Your task to perform on an android device: Open notification settings Image 0: 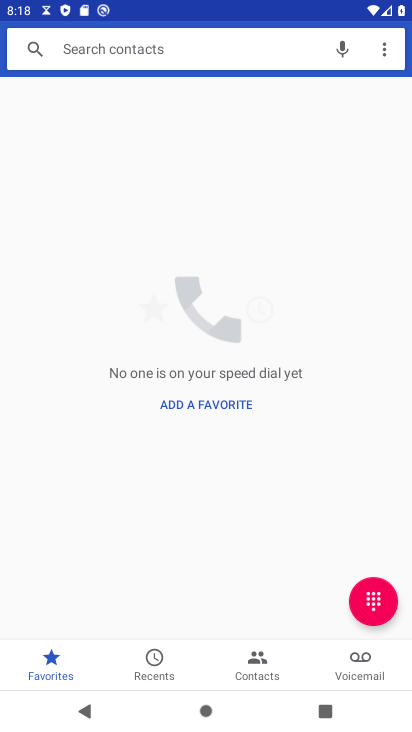
Step 0: press home button
Your task to perform on an android device: Open notification settings Image 1: 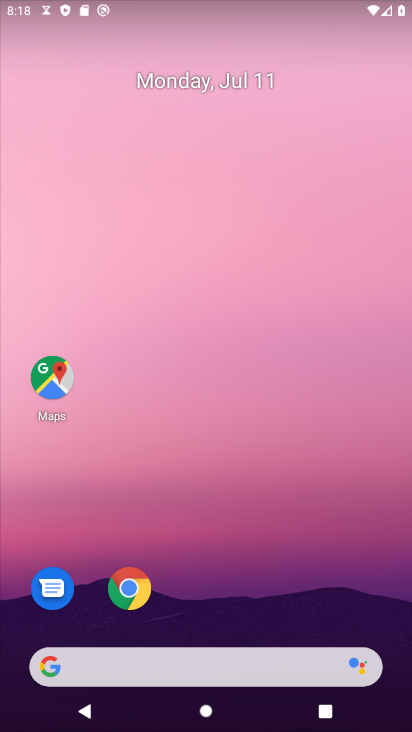
Step 1: drag from (252, 617) to (142, 128)
Your task to perform on an android device: Open notification settings Image 2: 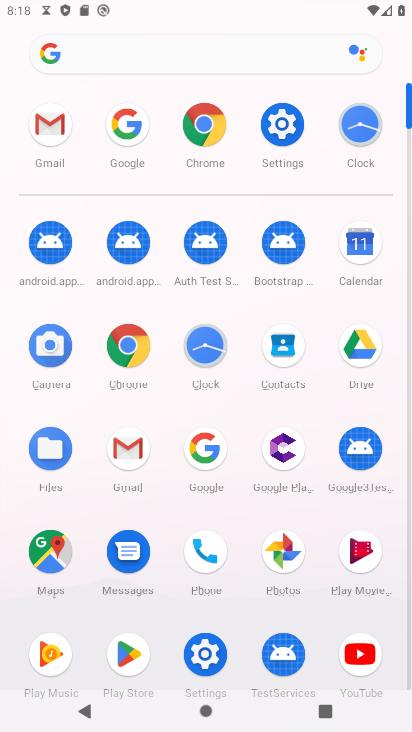
Step 2: click (282, 127)
Your task to perform on an android device: Open notification settings Image 3: 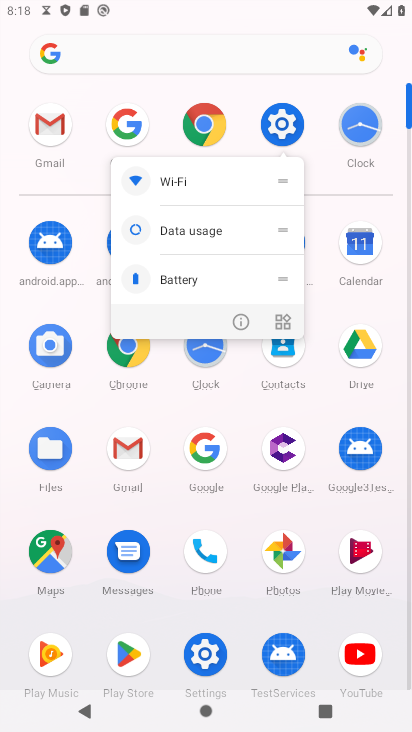
Step 3: click (282, 127)
Your task to perform on an android device: Open notification settings Image 4: 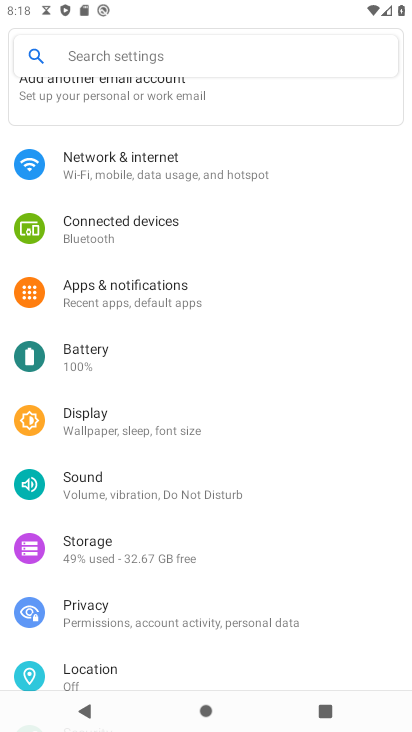
Step 4: click (88, 296)
Your task to perform on an android device: Open notification settings Image 5: 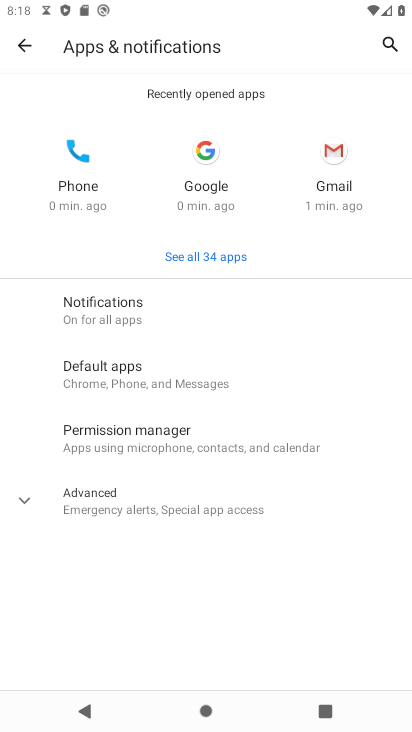
Step 5: click (94, 305)
Your task to perform on an android device: Open notification settings Image 6: 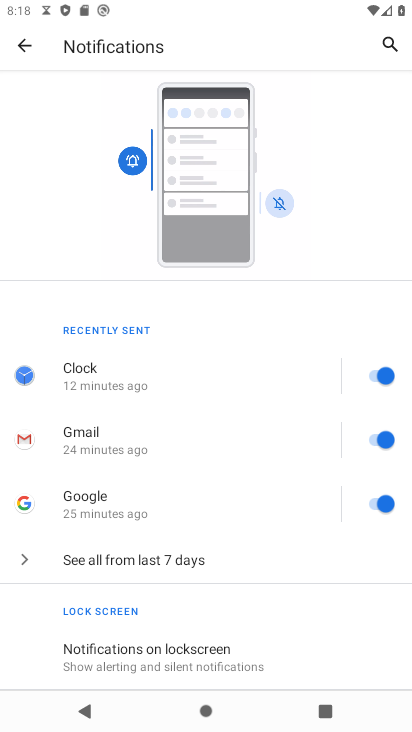
Step 6: task complete